Your task to perform on an android device: turn off priority inbox in the gmail app Image 0: 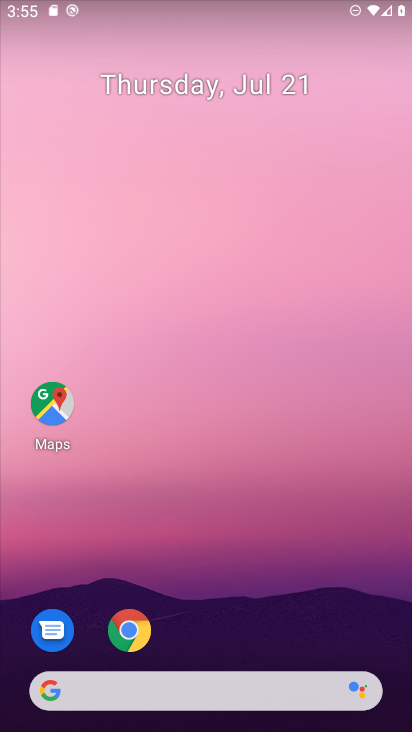
Step 0: drag from (155, 660) to (236, 19)
Your task to perform on an android device: turn off priority inbox in the gmail app Image 1: 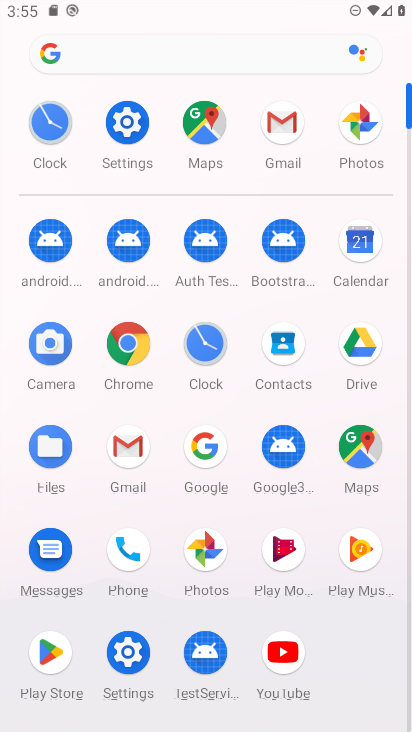
Step 1: click (281, 117)
Your task to perform on an android device: turn off priority inbox in the gmail app Image 2: 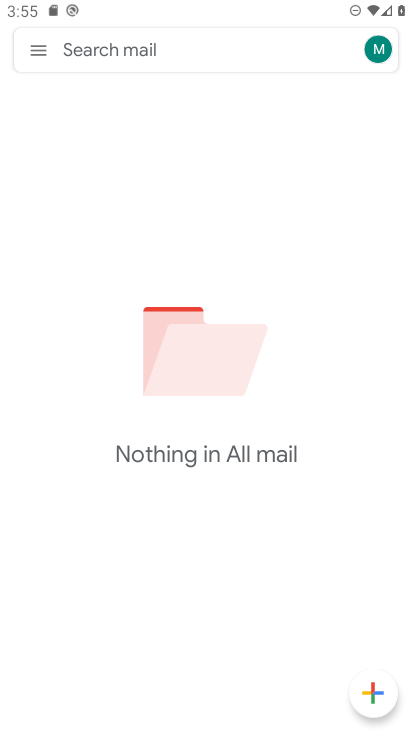
Step 2: click (36, 55)
Your task to perform on an android device: turn off priority inbox in the gmail app Image 3: 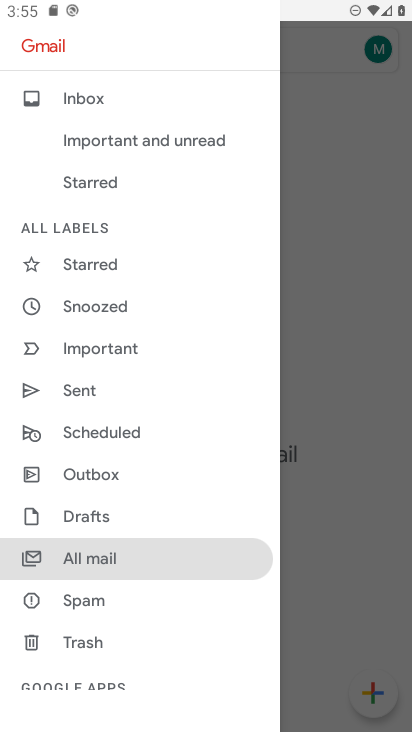
Step 3: drag from (101, 652) to (229, 8)
Your task to perform on an android device: turn off priority inbox in the gmail app Image 4: 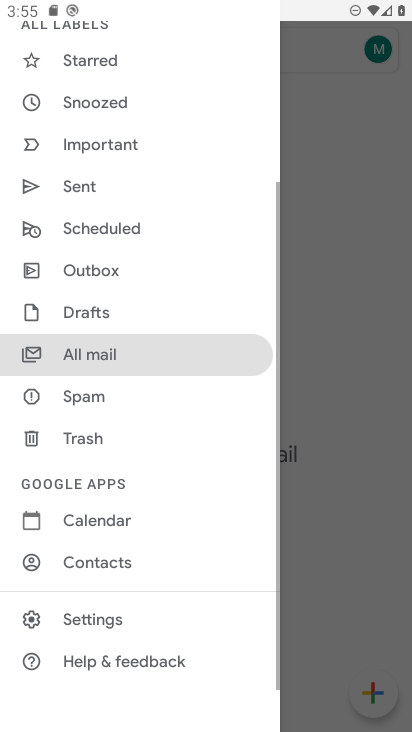
Step 4: click (107, 627)
Your task to perform on an android device: turn off priority inbox in the gmail app Image 5: 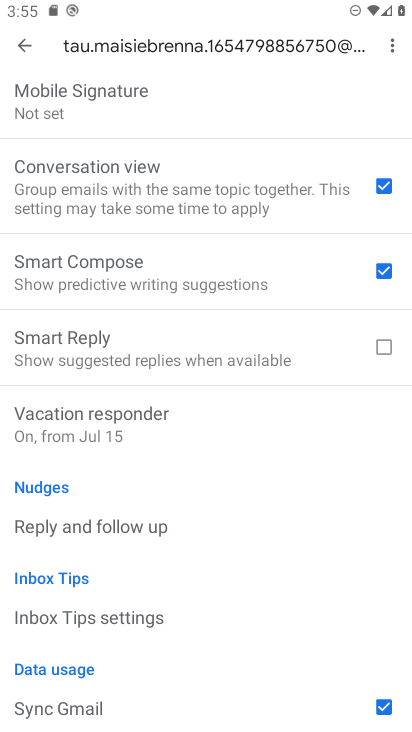
Step 5: drag from (123, 152) to (238, 693)
Your task to perform on an android device: turn off priority inbox in the gmail app Image 6: 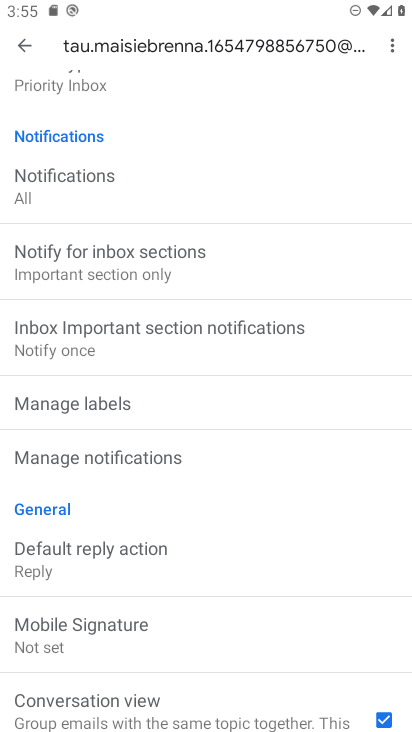
Step 6: drag from (112, 169) to (155, 717)
Your task to perform on an android device: turn off priority inbox in the gmail app Image 7: 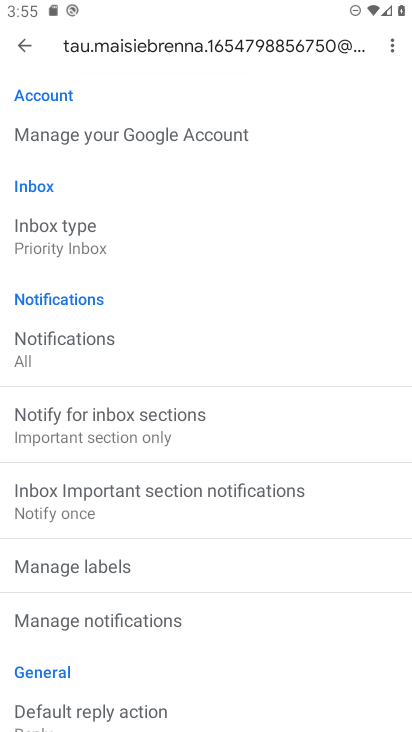
Step 7: click (86, 244)
Your task to perform on an android device: turn off priority inbox in the gmail app Image 8: 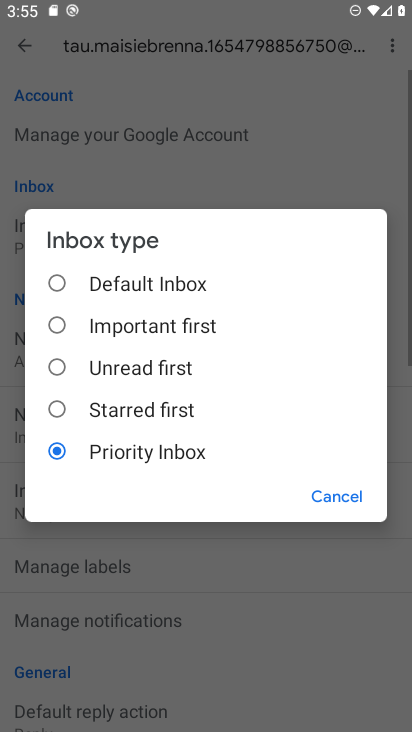
Step 8: click (94, 279)
Your task to perform on an android device: turn off priority inbox in the gmail app Image 9: 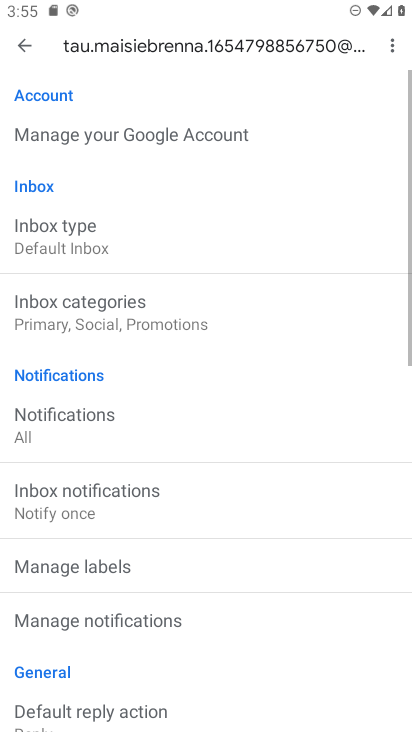
Step 9: task complete